Your task to perform on an android device: turn off sleep mode Image 0: 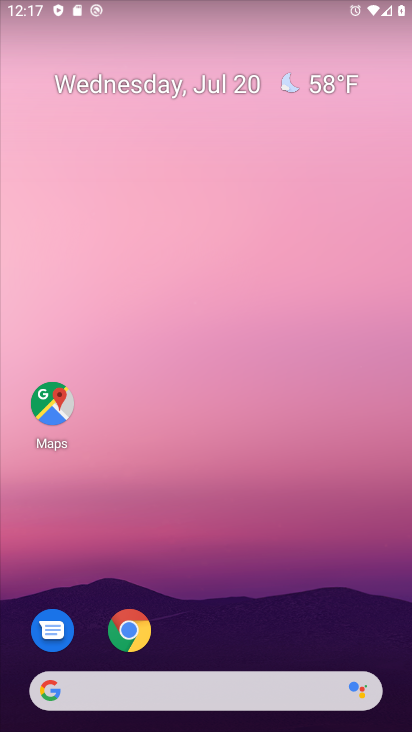
Step 0: drag from (227, 702) to (370, 79)
Your task to perform on an android device: turn off sleep mode Image 1: 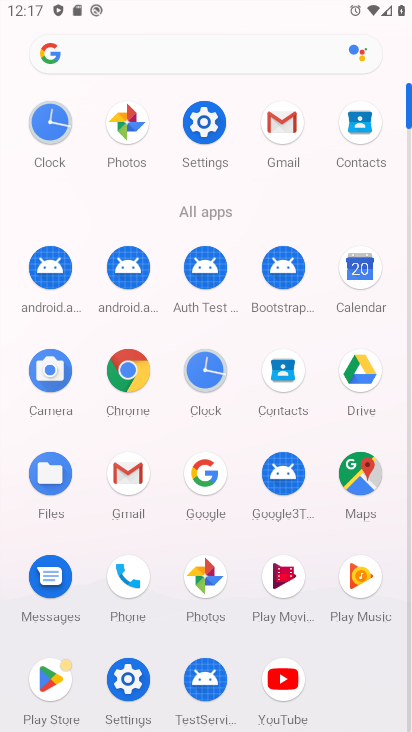
Step 1: click (203, 124)
Your task to perform on an android device: turn off sleep mode Image 2: 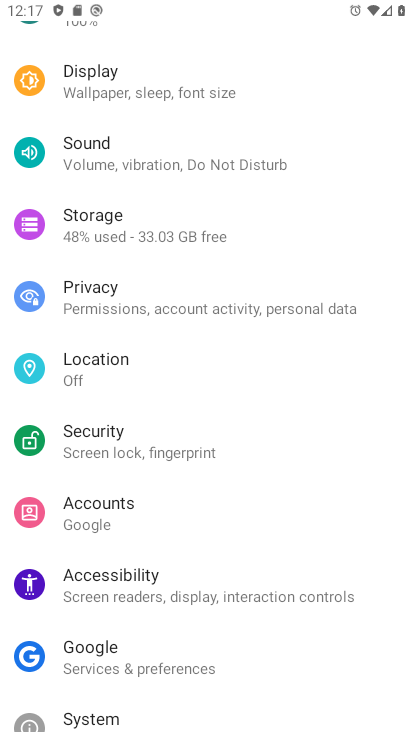
Step 2: click (178, 80)
Your task to perform on an android device: turn off sleep mode Image 3: 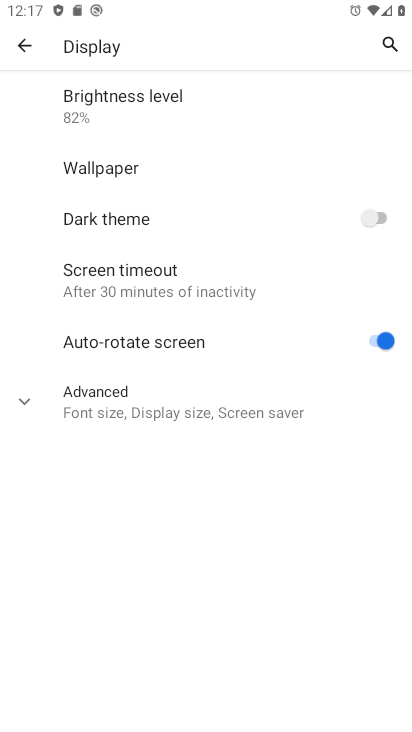
Step 3: task complete